Your task to perform on an android device: open a bookmark in the chrome app Image 0: 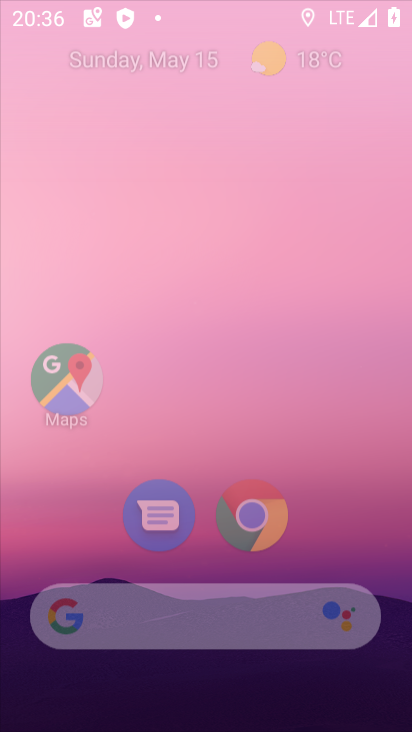
Step 0: click (245, 564)
Your task to perform on an android device: open a bookmark in the chrome app Image 1: 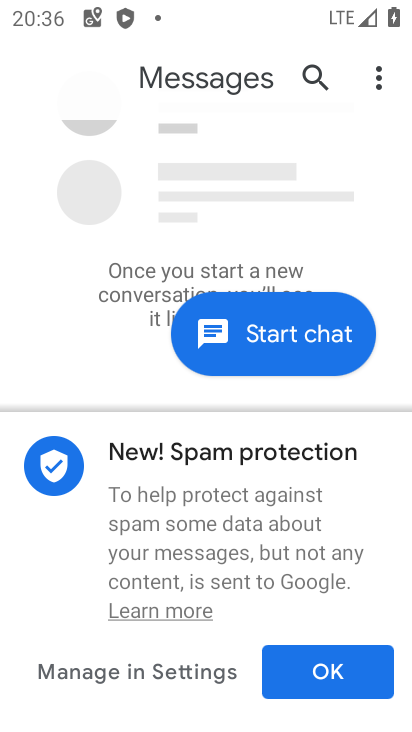
Step 1: press home button
Your task to perform on an android device: open a bookmark in the chrome app Image 2: 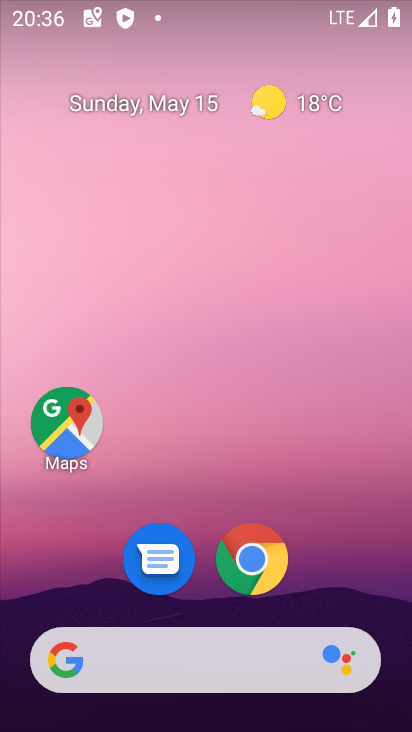
Step 2: click (249, 554)
Your task to perform on an android device: open a bookmark in the chrome app Image 3: 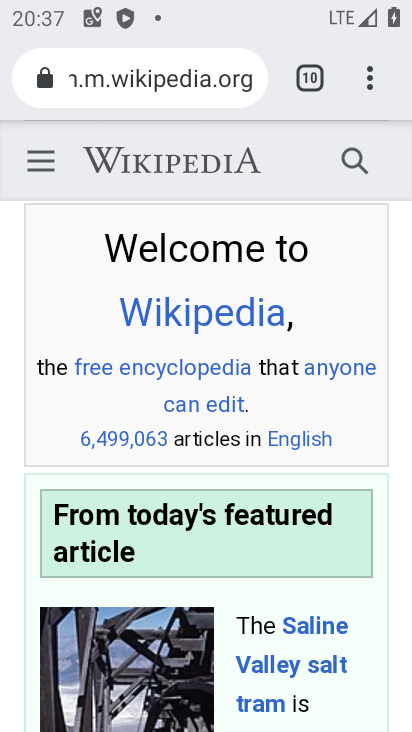
Step 3: click (370, 86)
Your task to perform on an android device: open a bookmark in the chrome app Image 4: 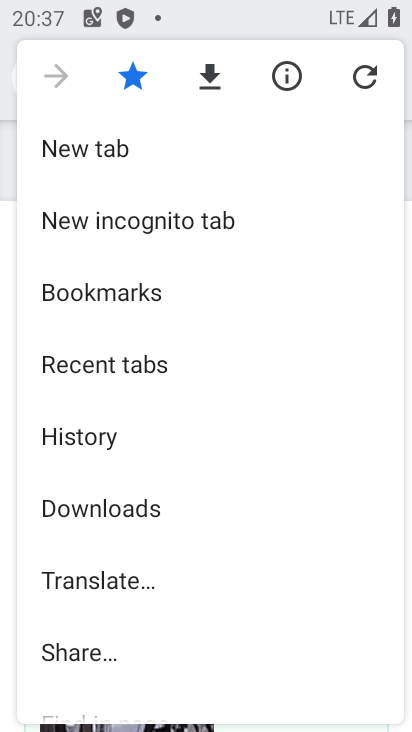
Step 4: click (133, 289)
Your task to perform on an android device: open a bookmark in the chrome app Image 5: 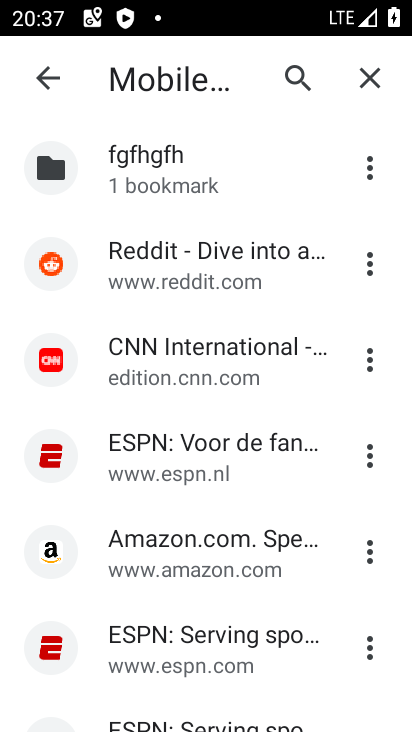
Step 5: task complete